Your task to perform on an android device: Open Chrome and go to settings Image 0: 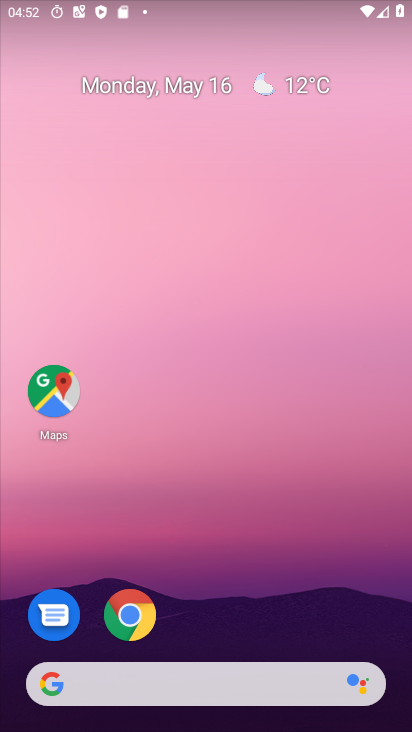
Step 0: drag from (339, 643) to (225, 226)
Your task to perform on an android device: Open Chrome and go to settings Image 1: 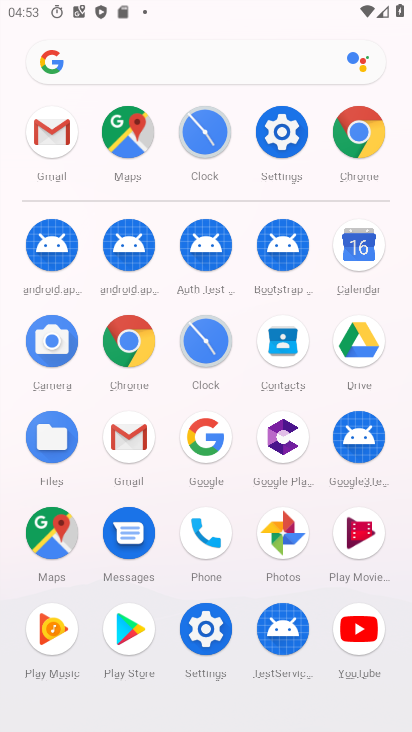
Step 1: click (284, 146)
Your task to perform on an android device: Open Chrome and go to settings Image 2: 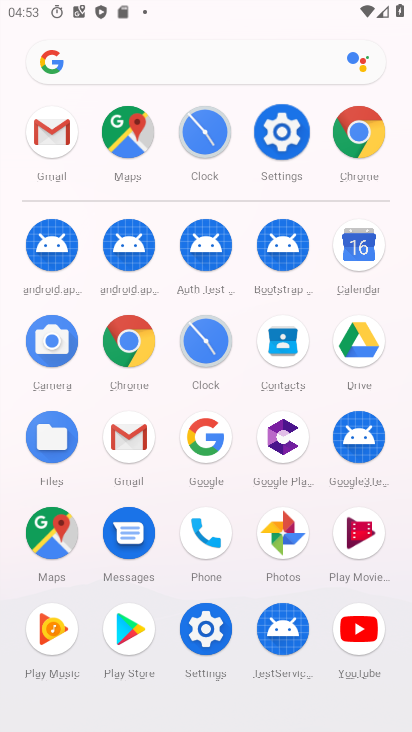
Step 2: click (285, 145)
Your task to perform on an android device: Open Chrome and go to settings Image 3: 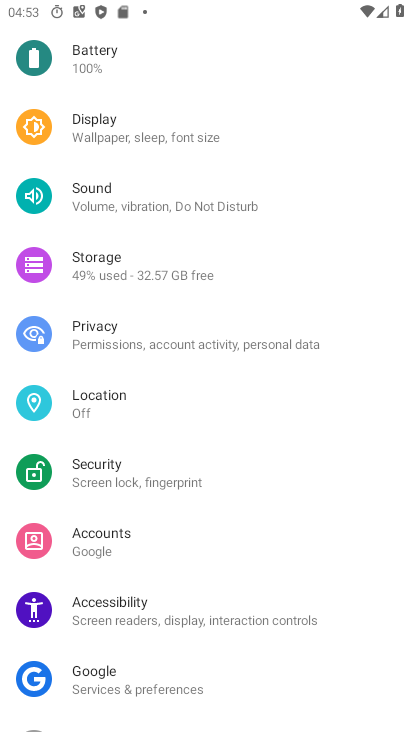
Step 3: drag from (106, 263) to (119, 576)
Your task to perform on an android device: Open Chrome and go to settings Image 4: 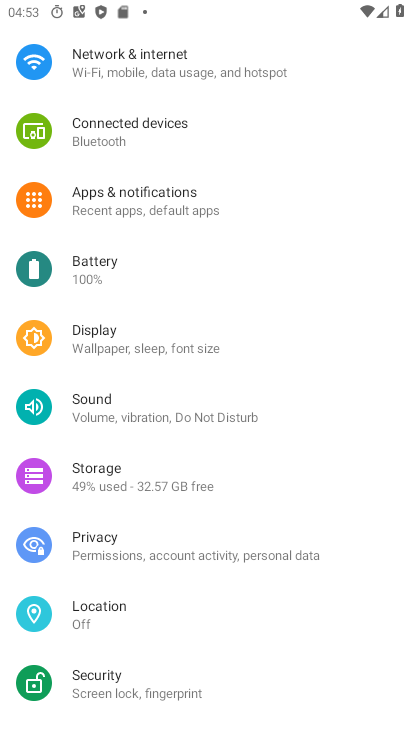
Step 4: drag from (102, 255) to (182, 563)
Your task to perform on an android device: Open Chrome and go to settings Image 5: 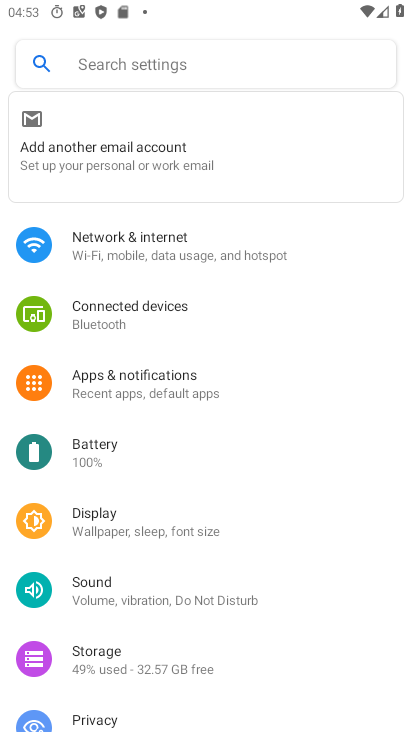
Step 5: drag from (202, 278) to (262, 714)
Your task to perform on an android device: Open Chrome and go to settings Image 6: 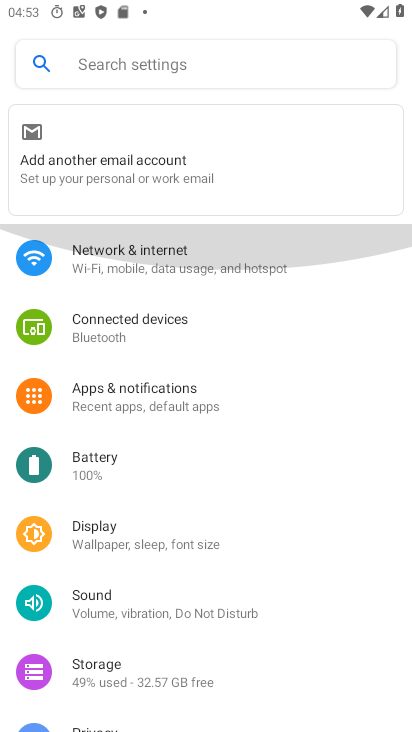
Step 6: drag from (206, 252) to (235, 461)
Your task to perform on an android device: Open Chrome and go to settings Image 7: 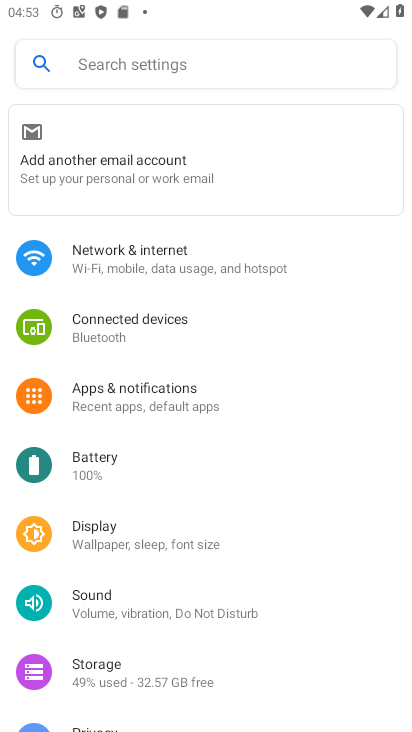
Step 7: press back button
Your task to perform on an android device: Open Chrome and go to settings Image 8: 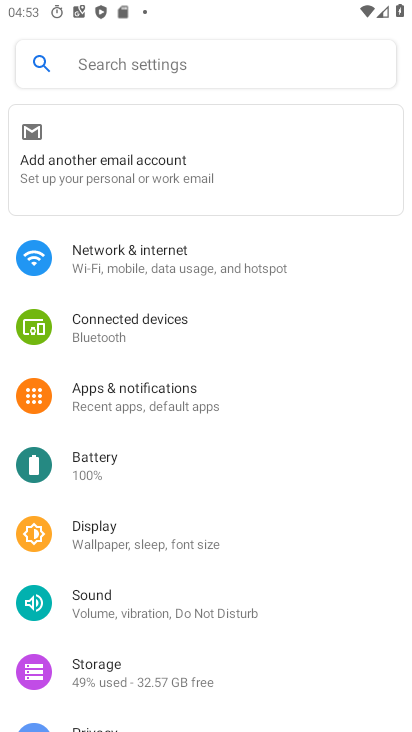
Step 8: press back button
Your task to perform on an android device: Open Chrome and go to settings Image 9: 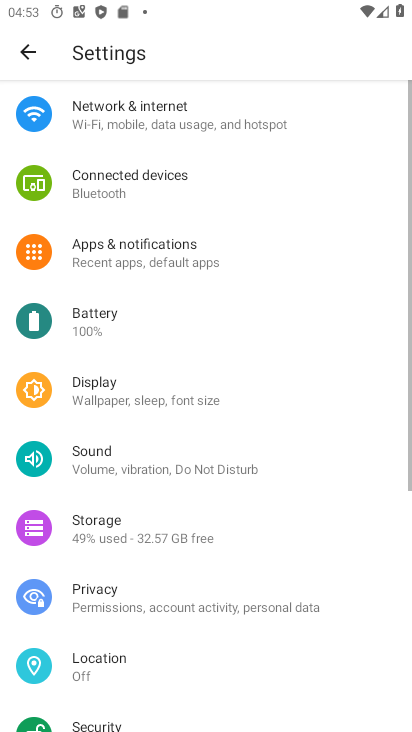
Step 9: press back button
Your task to perform on an android device: Open Chrome and go to settings Image 10: 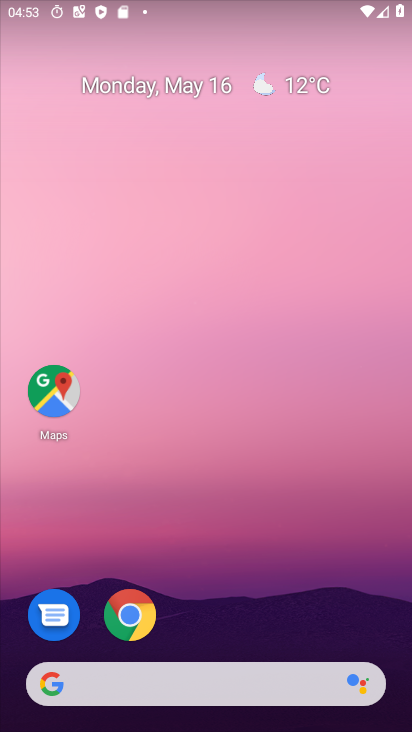
Step 10: drag from (299, 410) to (214, 10)
Your task to perform on an android device: Open Chrome and go to settings Image 11: 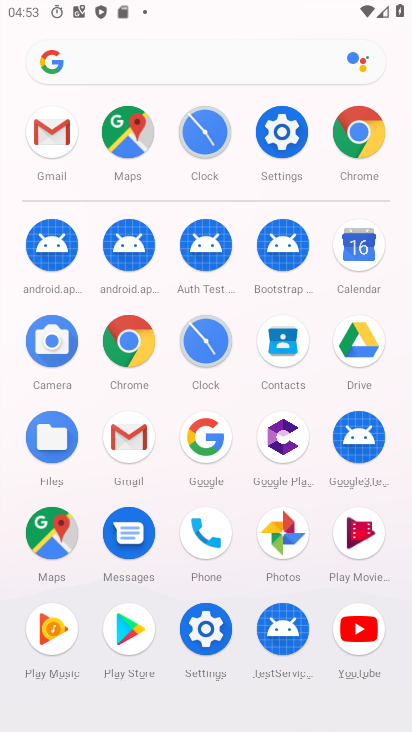
Step 11: click (357, 137)
Your task to perform on an android device: Open Chrome and go to settings Image 12: 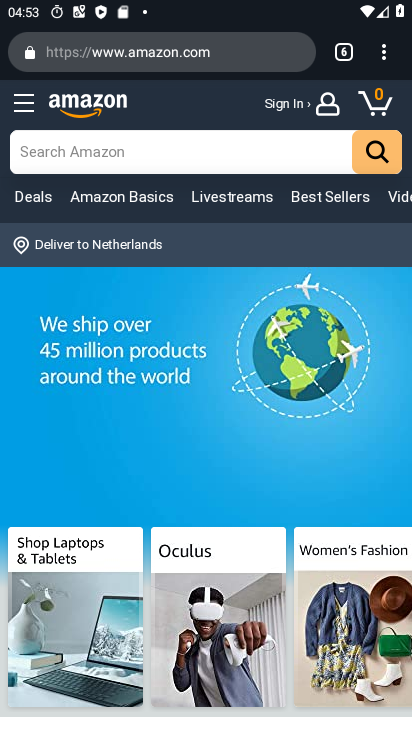
Step 12: drag from (382, 57) to (180, 651)
Your task to perform on an android device: Open Chrome and go to settings Image 13: 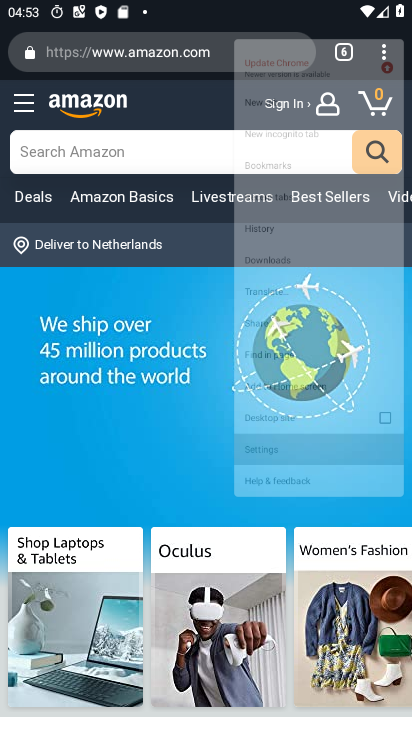
Step 13: click (178, 653)
Your task to perform on an android device: Open Chrome and go to settings Image 14: 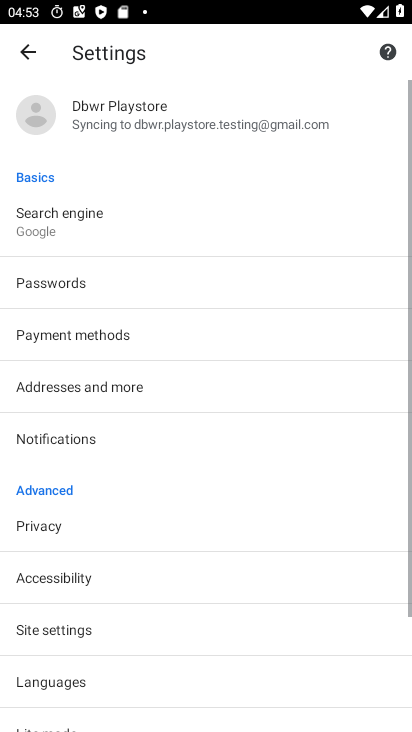
Step 14: task complete